Your task to perform on an android device: allow notifications from all sites in the chrome app Image 0: 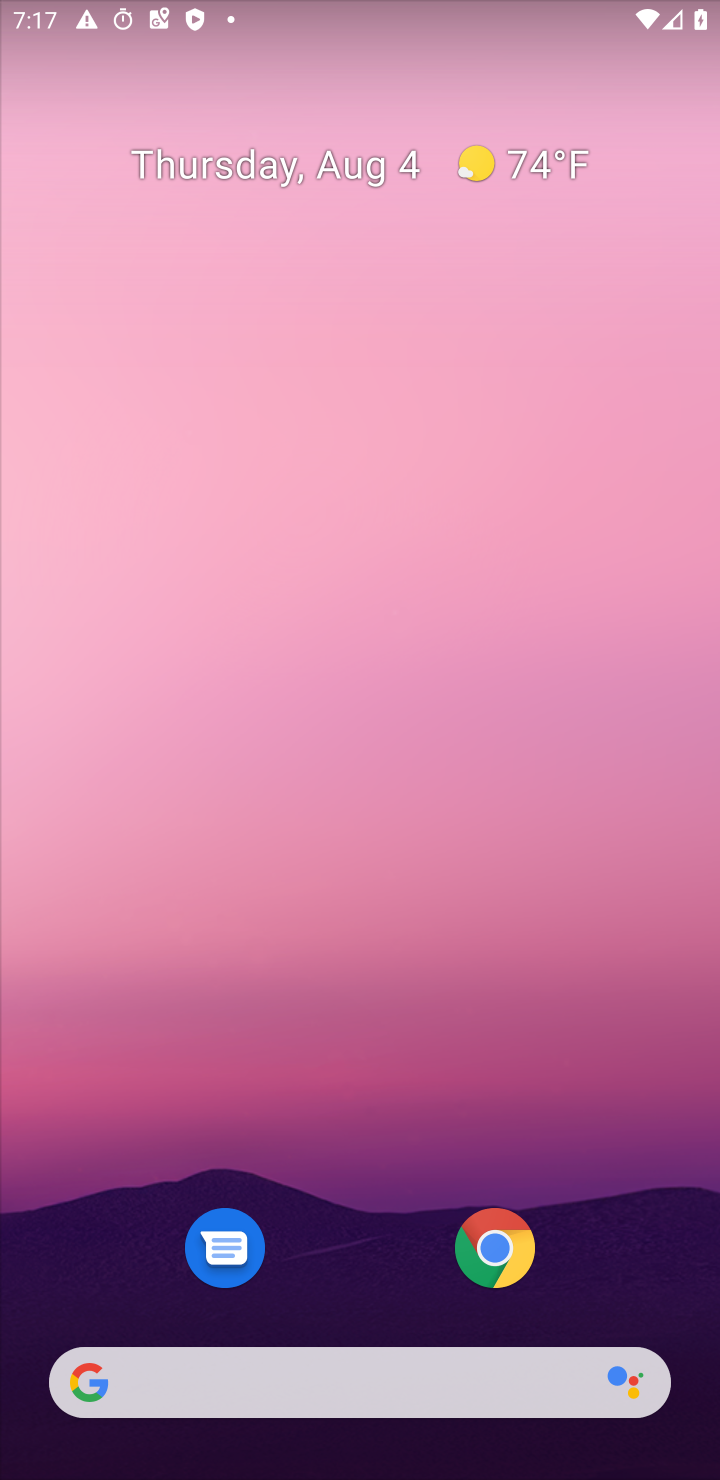
Step 0: press home button
Your task to perform on an android device: allow notifications from all sites in the chrome app Image 1: 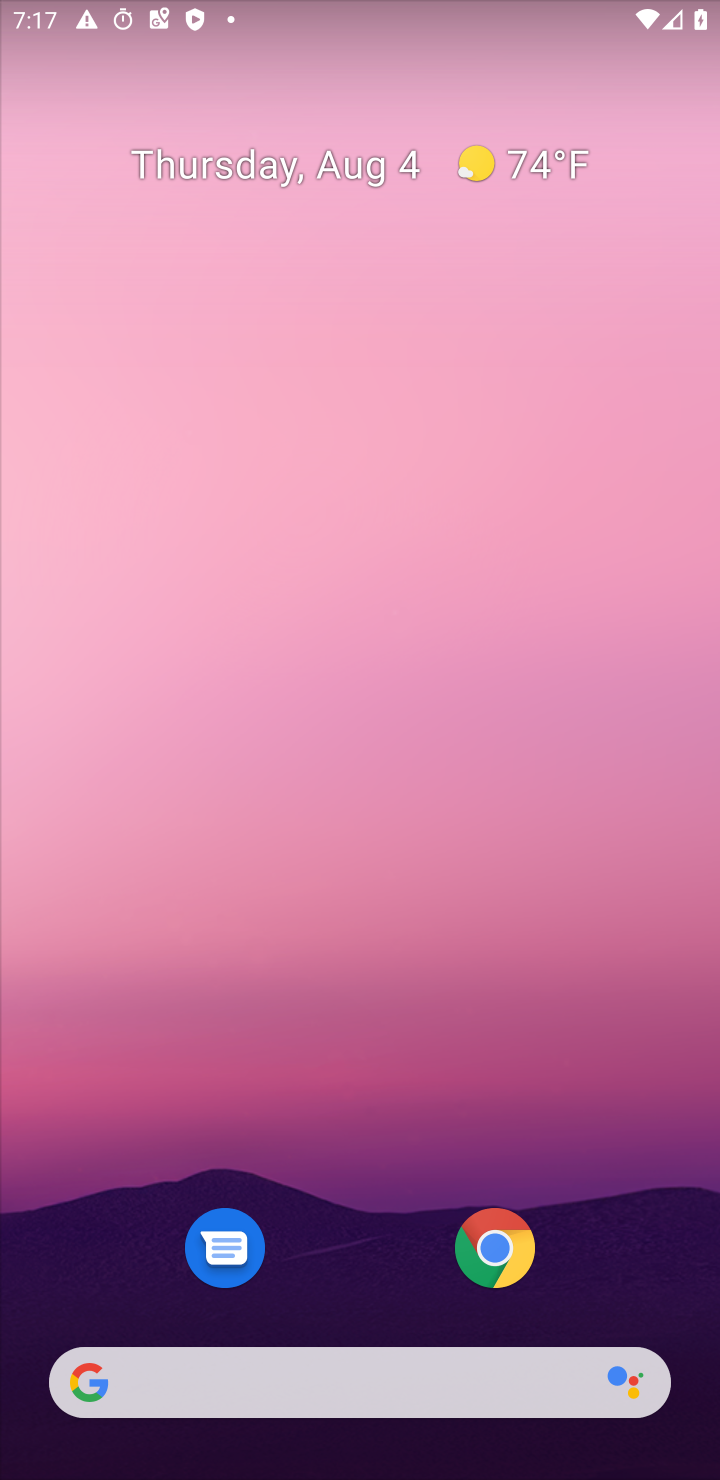
Step 1: drag from (530, 678) to (489, 300)
Your task to perform on an android device: allow notifications from all sites in the chrome app Image 2: 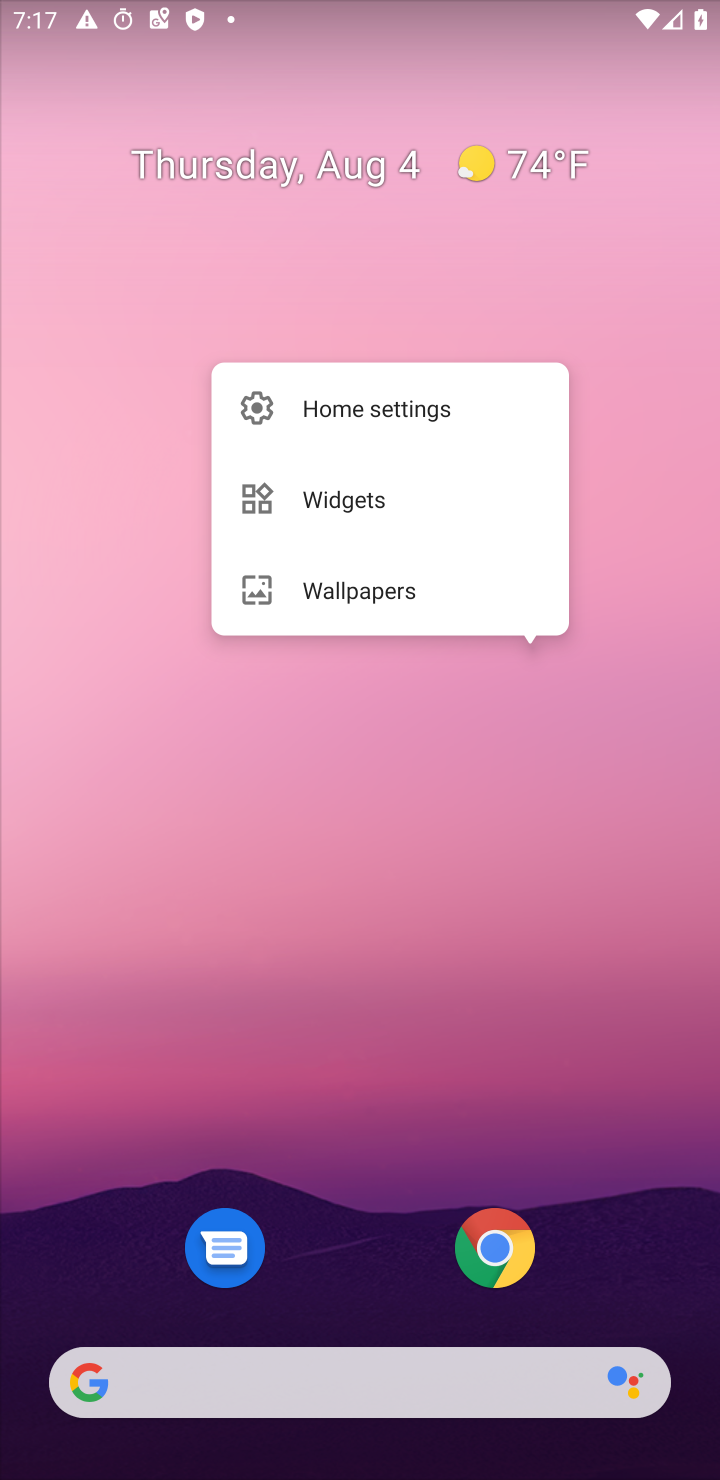
Step 2: click (529, 312)
Your task to perform on an android device: allow notifications from all sites in the chrome app Image 3: 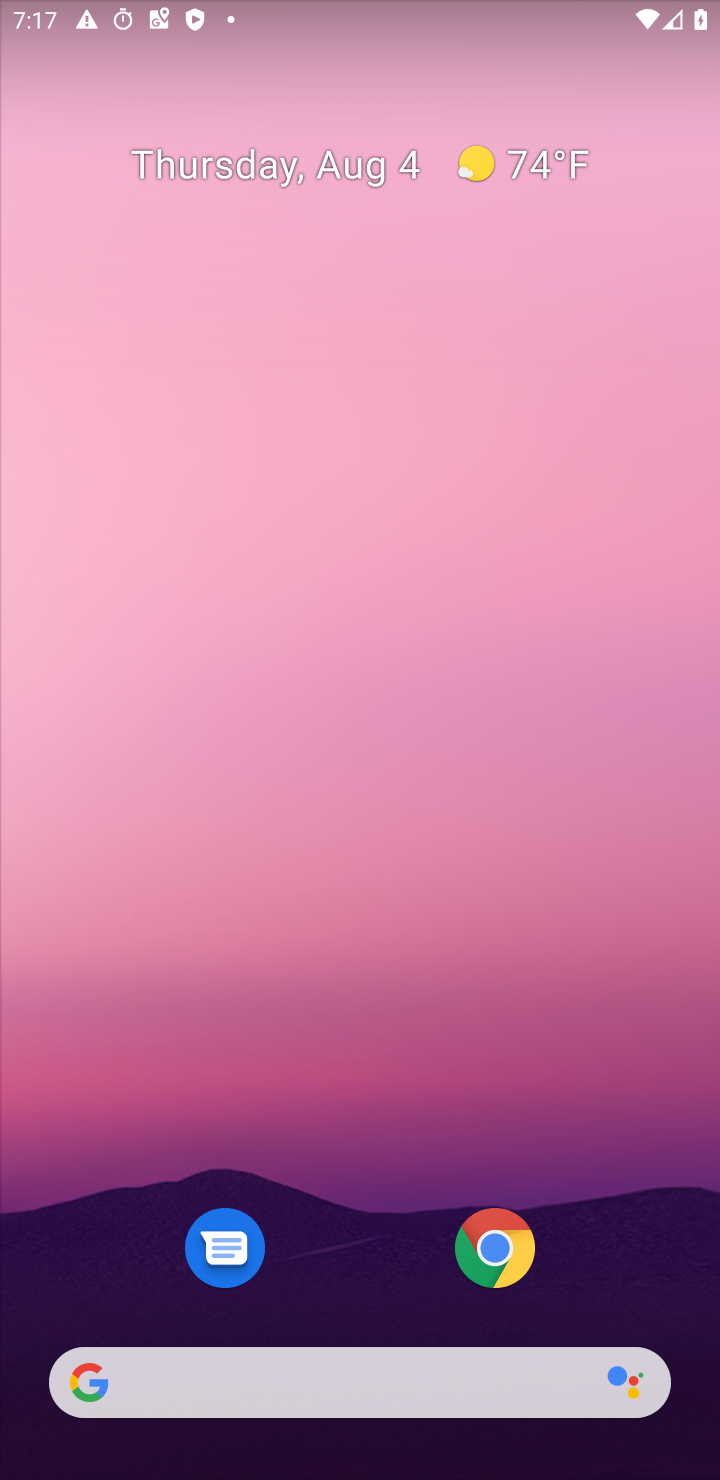
Step 3: drag from (275, 1387) to (323, 683)
Your task to perform on an android device: allow notifications from all sites in the chrome app Image 4: 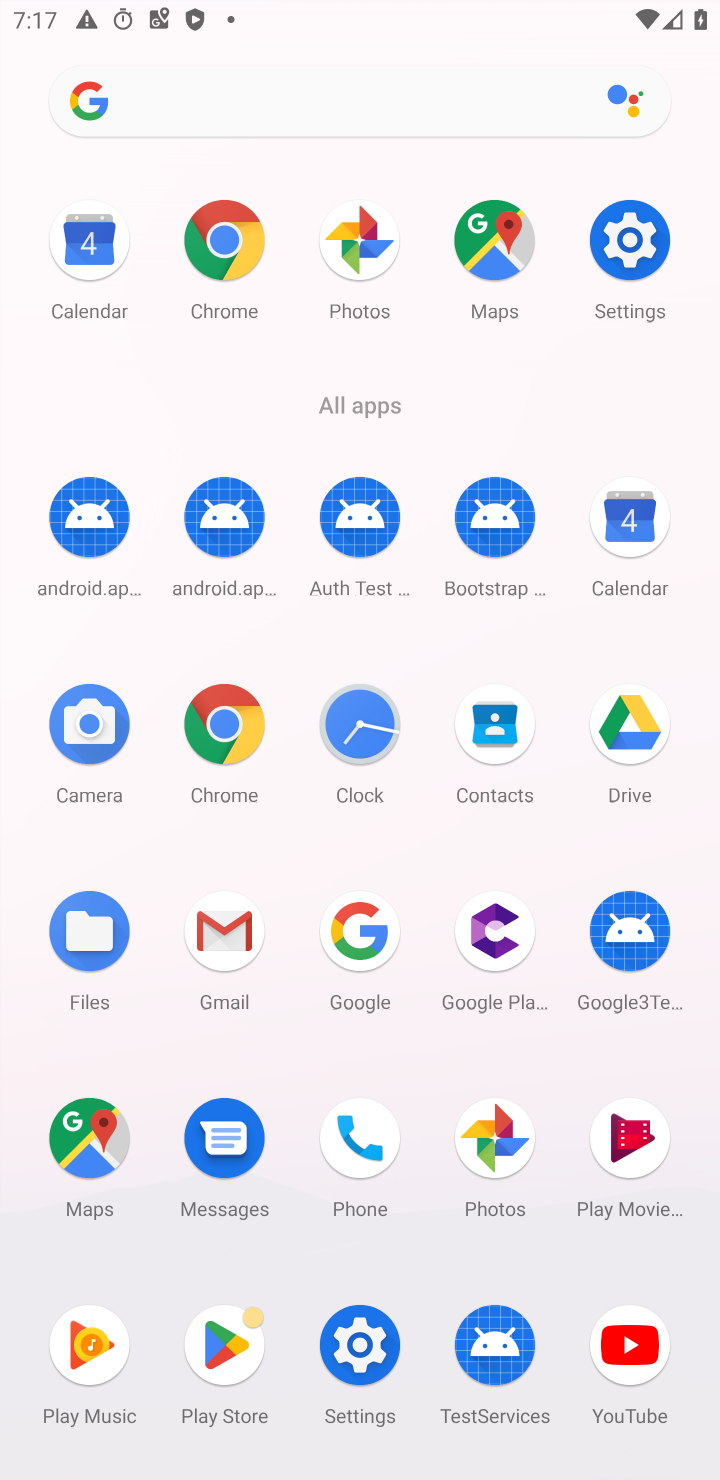
Step 4: click (216, 732)
Your task to perform on an android device: allow notifications from all sites in the chrome app Image 5: 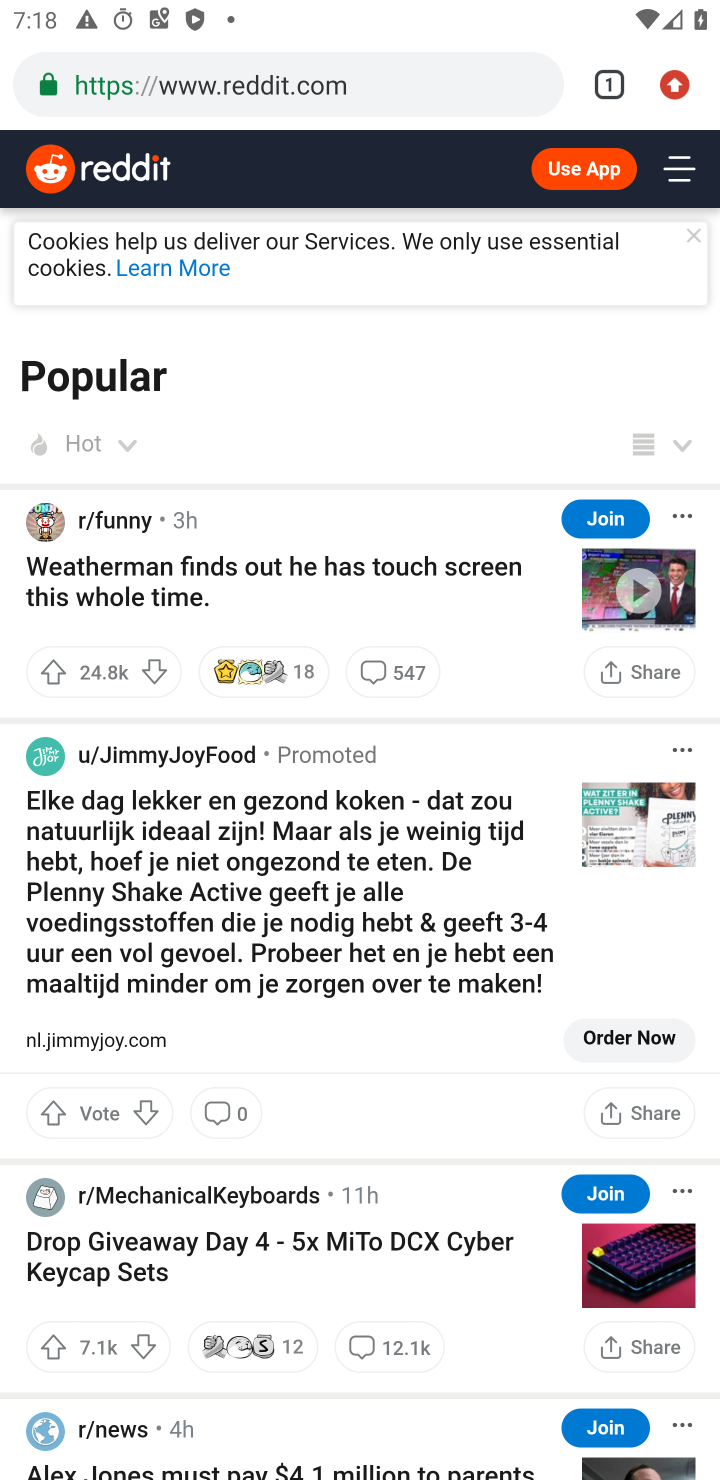
Step 5: click (684, 112)
Your task to perform on an android device: allow notifications from all sites in the chrome app Image 6: 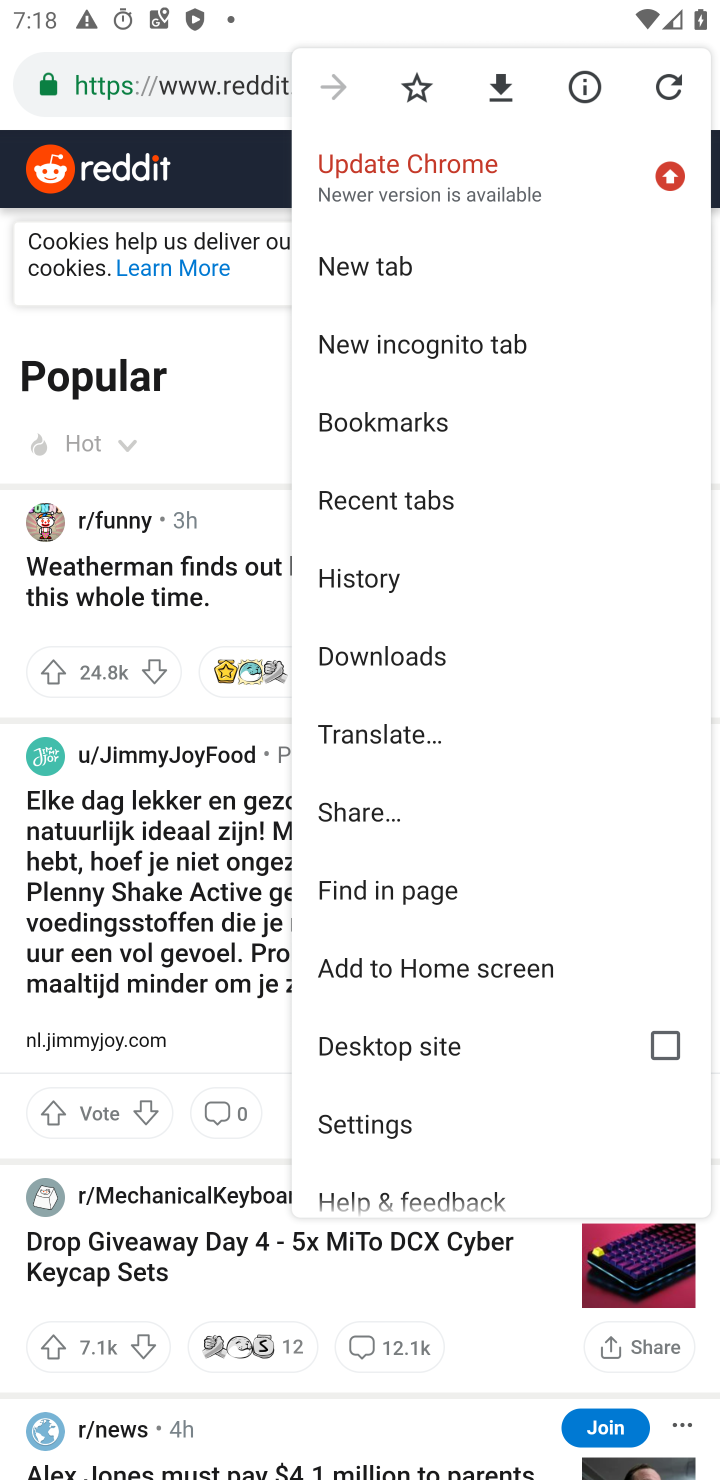
Step 6: click (401, 1126)
Your task to perform on an android device: allow notifications from all sites in the chrome app Image 7: 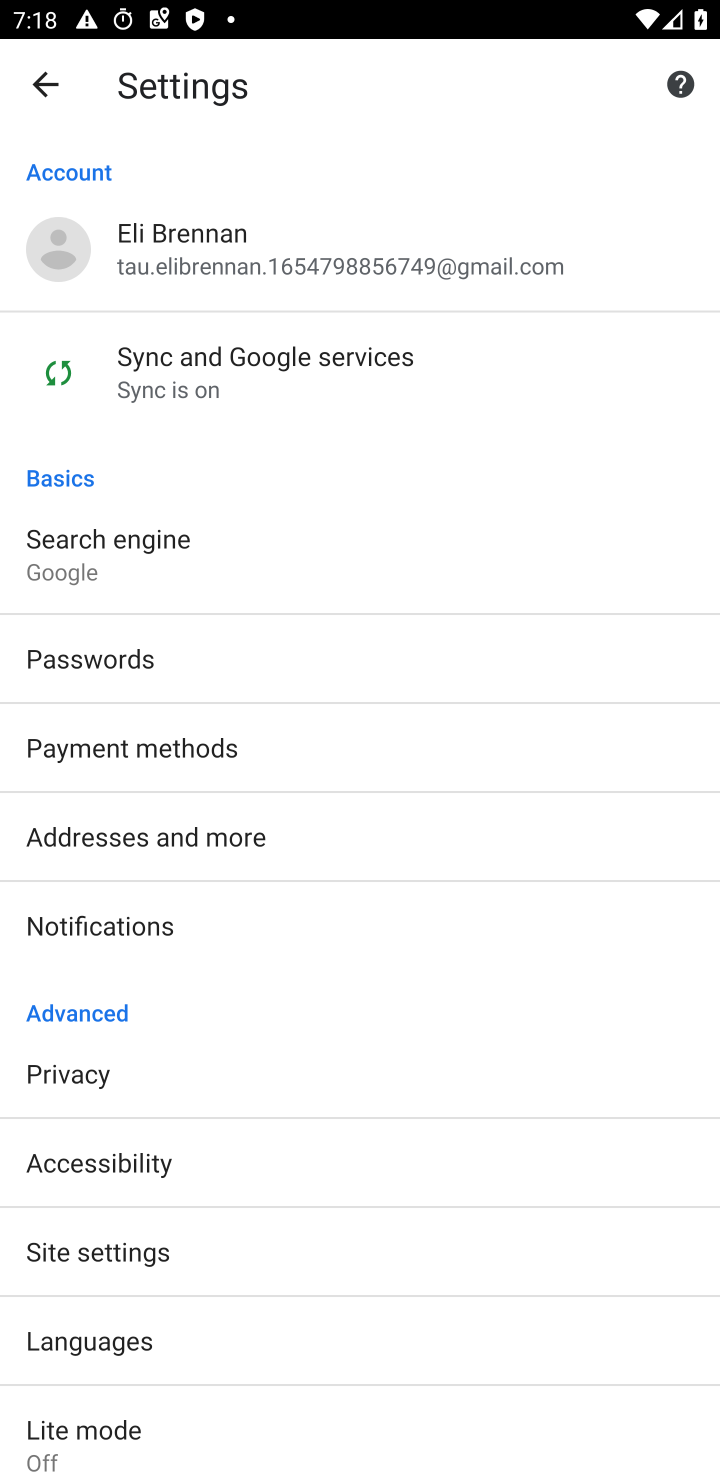
Step 7: click (178, 1242)
Your task to perform on an android device: allow notifications from all sites in the chrome app Image 8: 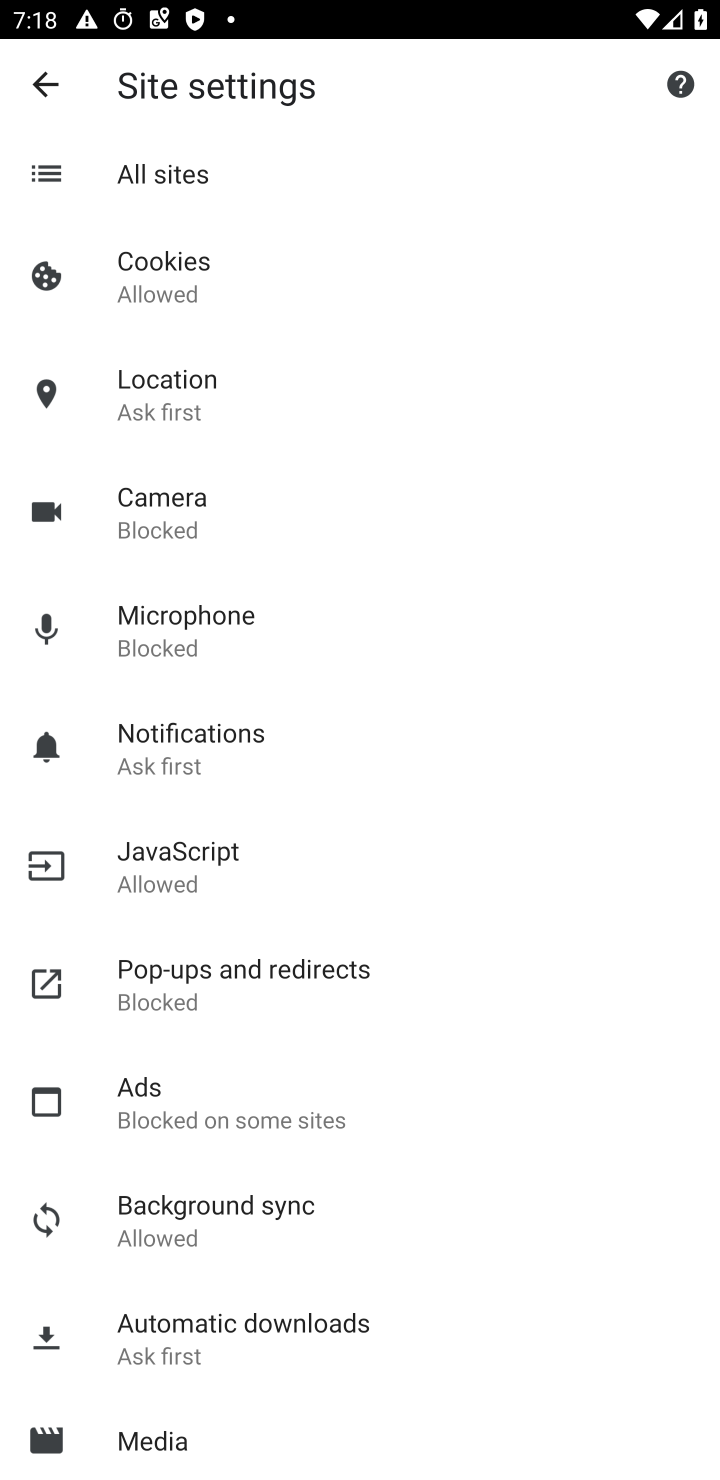
Step 8: click (242, 747)
Your task to perform on an android device: allow notifications from all sites in the chrome app Image 9: 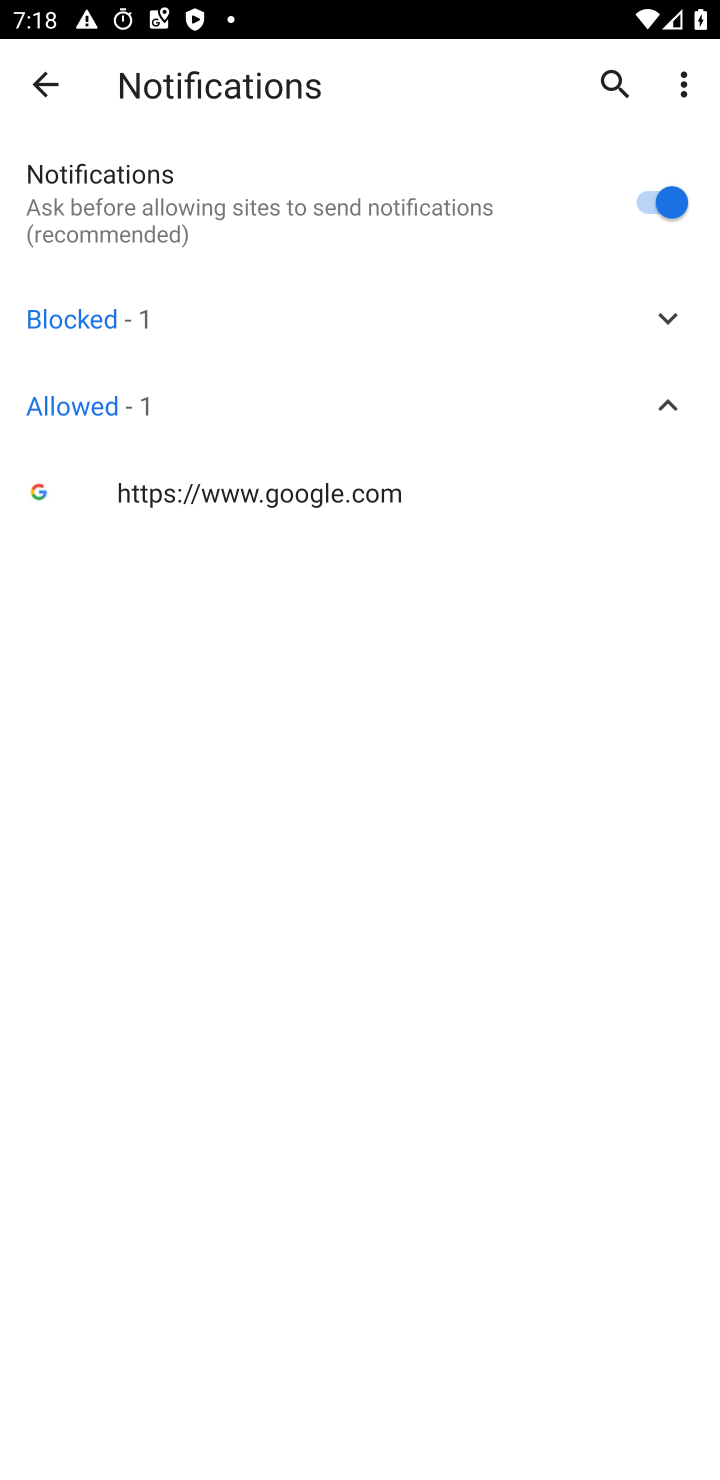
Step 9: click (637, 193)
Your task to perform on an android device: allow notifications from all sites in the chrome app Image 10: 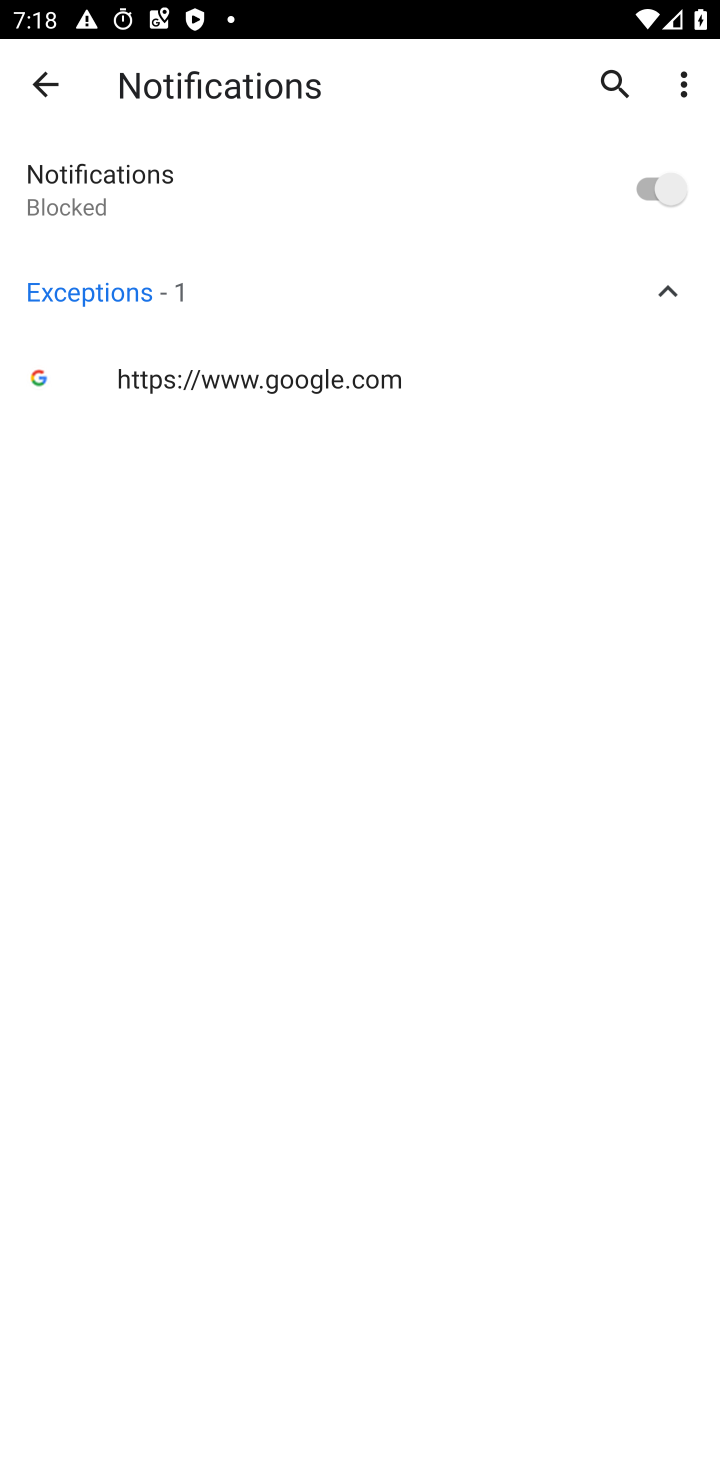
Step 10: click (637, 193)
Your task to perform on an android device: allow notifications from all sites in the chrome app Image 11: 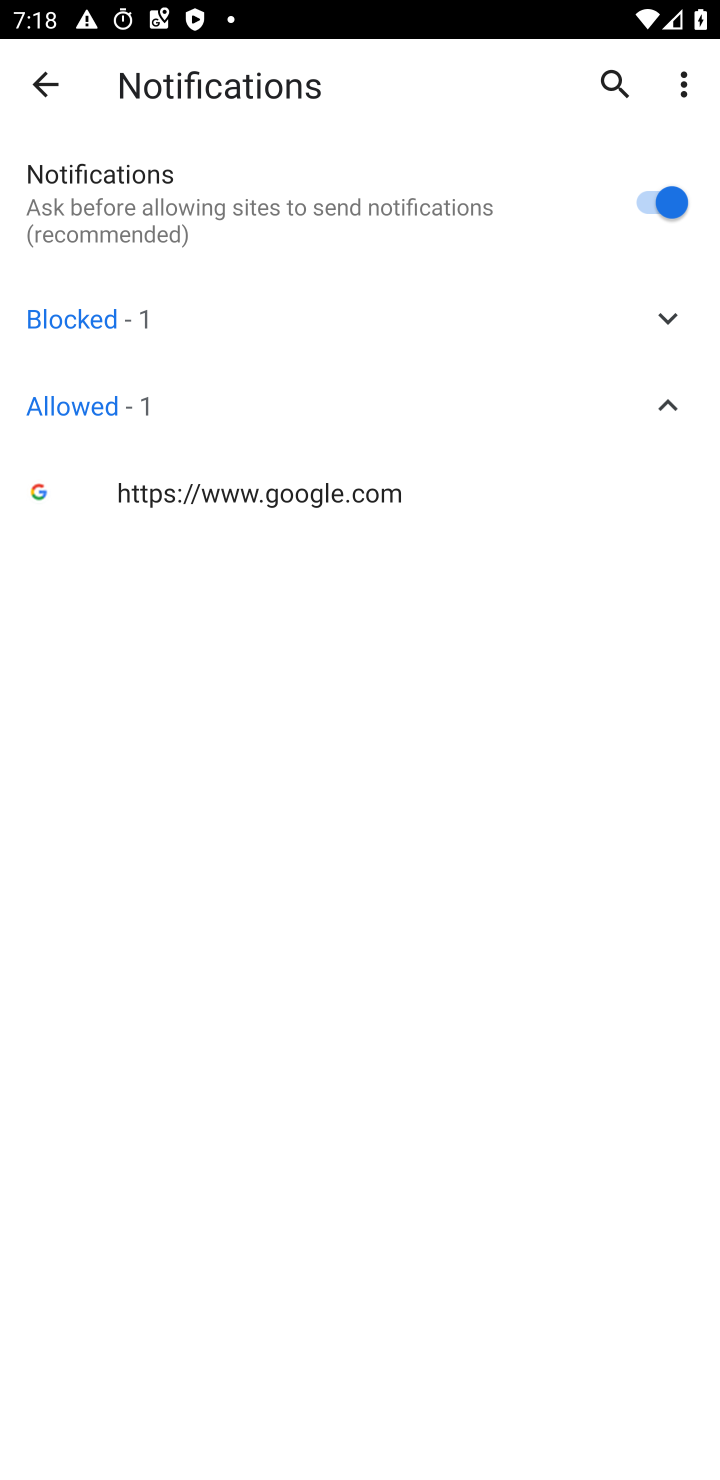
Step 11: task complete